Your task to perform on an android device: toggle notifications settings in the gmail app Image 0: 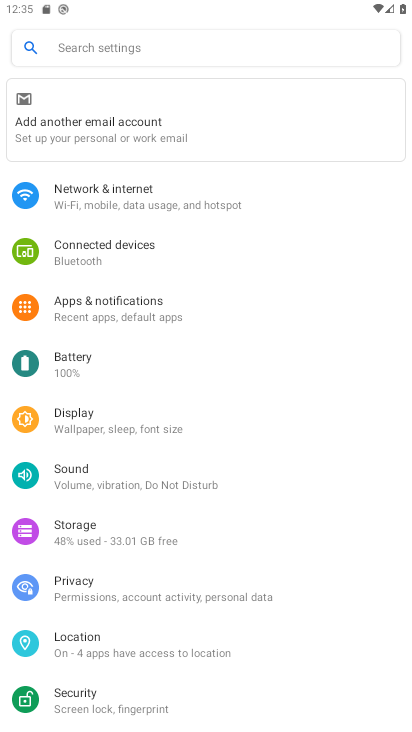
Step 0: press home button
Your task to perform on an android device: toggle notifications settings in the gmail app Image 1: 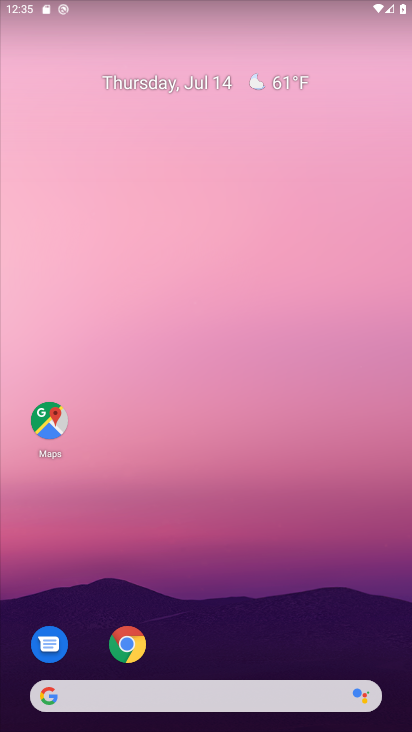
Step 1: drag from (267, 588) to (298, 28)
Your task to perform on an android device: toggle notifications settings in the gmail app Image 2: 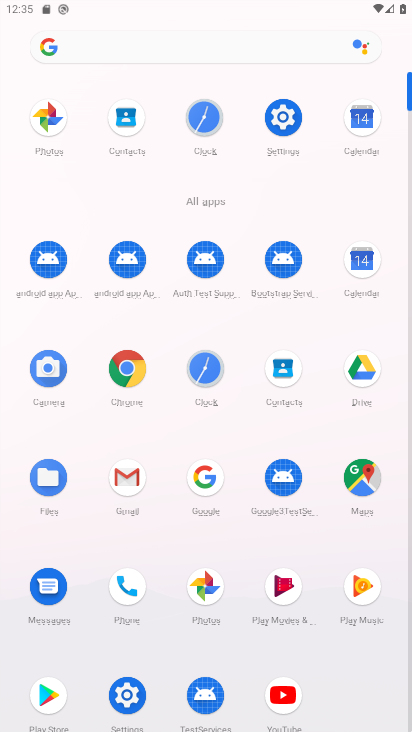
Step 2: click (130, 475)
Your task to perform on an android device: toggle notifications settings in the gmail app Image 3: 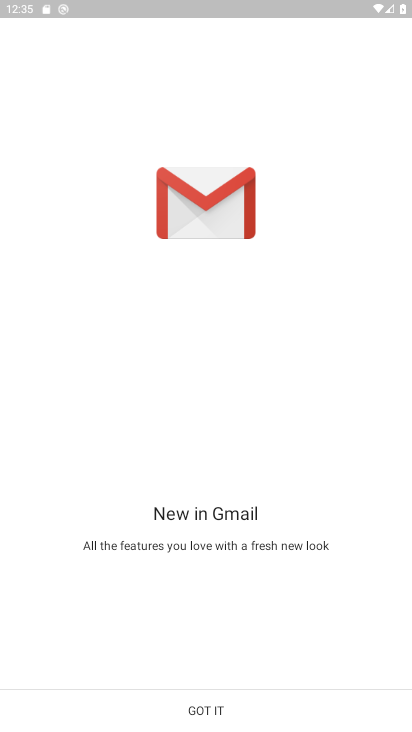
Step 3: click (195, 710)
Your task to perform on an android device: toggle notifications settings in the gmail app Image 4: 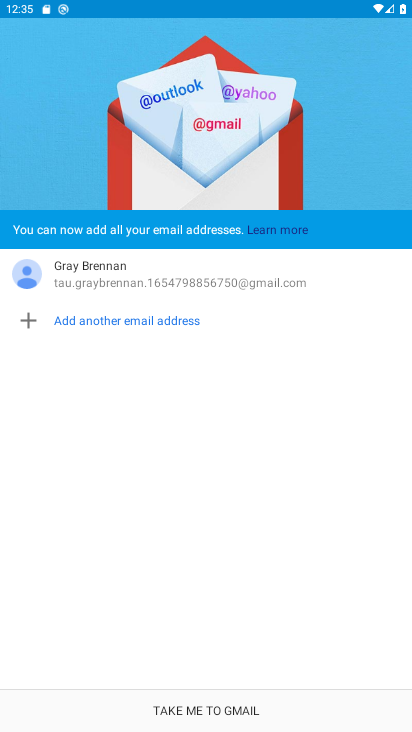
Step 4: click (217, 714)
Your task to perform on an android device: toggle notifications settings in the gmail app Image 5: 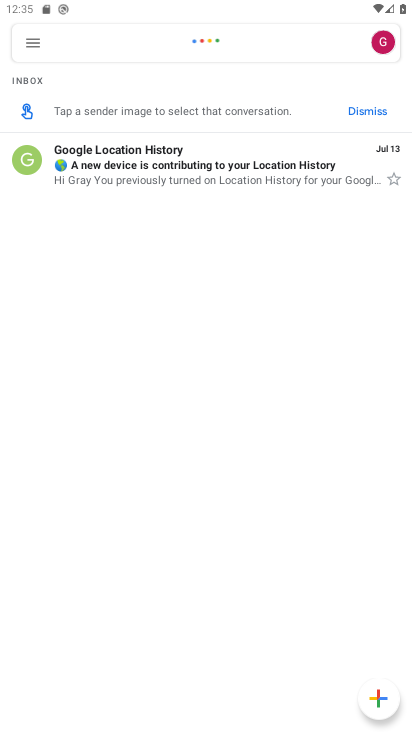
Step 5: click (32, 51)
Your task to perform on an android device: toggle notifications settings in the gmail app Image 6: 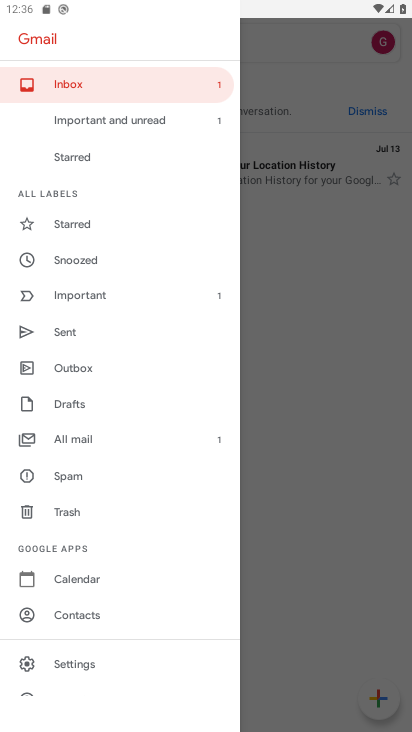
Step 6: click (80, 658)
Your task to perform on an android device: toggle notifications settings in the gmail app Image 7: 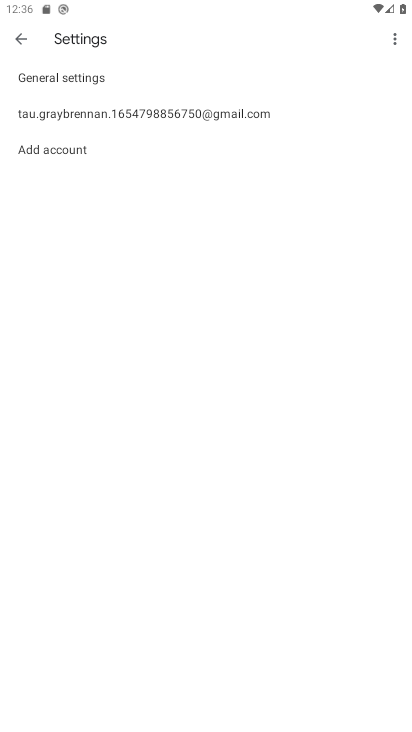
Step 7: click (125, 113)
Your task to perform on an android device: toggle notifications settings in the gmail app Image 8: 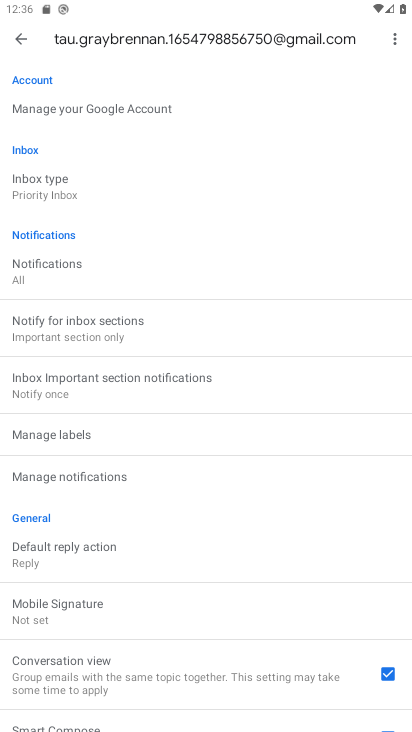
Step 8: click (132, 472)
Your task to perform on an android device: toggle notifications settings in the gmail app Image 9: 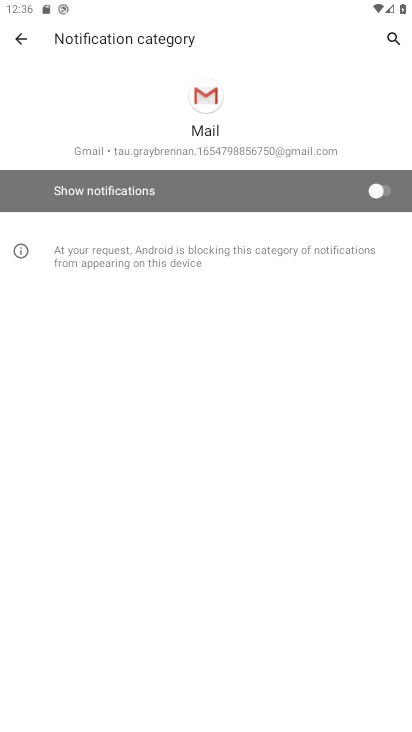
Step 9: click (362, 180)
Your task to perform on an android device: toggle notifications settings in the gmail app Image 10: 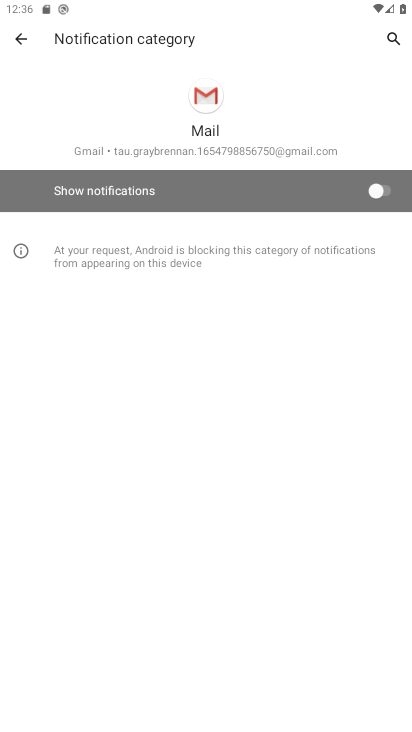
Step 10: click (376, 195)
Your task to perform on an android device: toggle notifications settings in the gmail app Image 11: 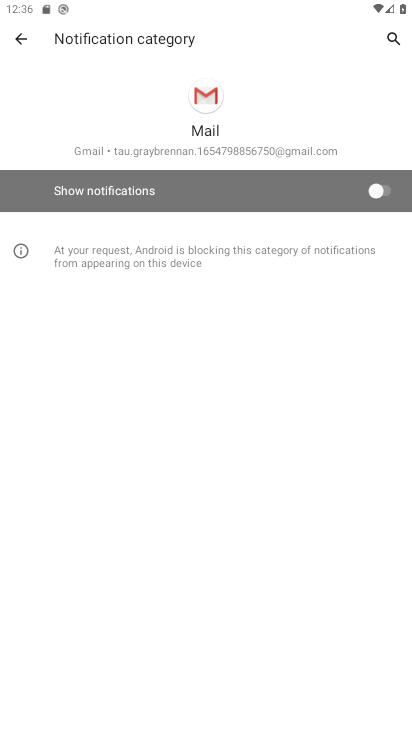
Step 11: task complete